Your task to perform on an android device: Is it going to rain tomorrow? Image 0: 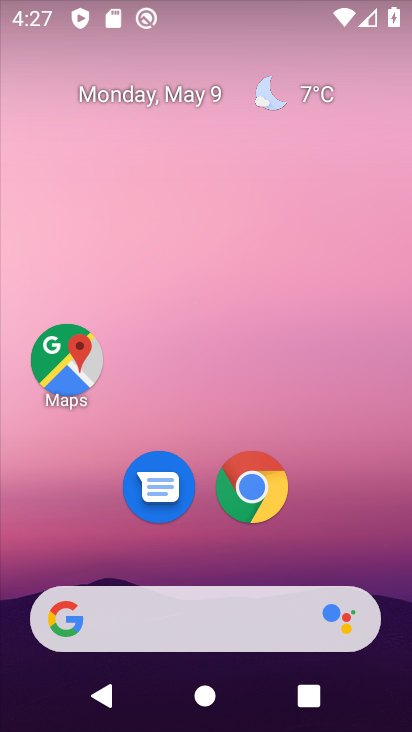
Step 0: click (186, 620)
Your task to perform on an android device: Is it going to rain tomorrow? Image 1: 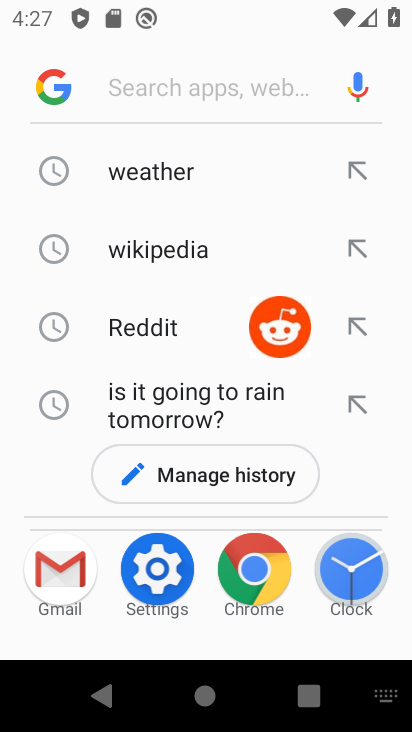
Step 1: type "Is it going to rain tomorrow?"
Your task to perform on an android device: Is it going to rain tomorrow? Image 2: 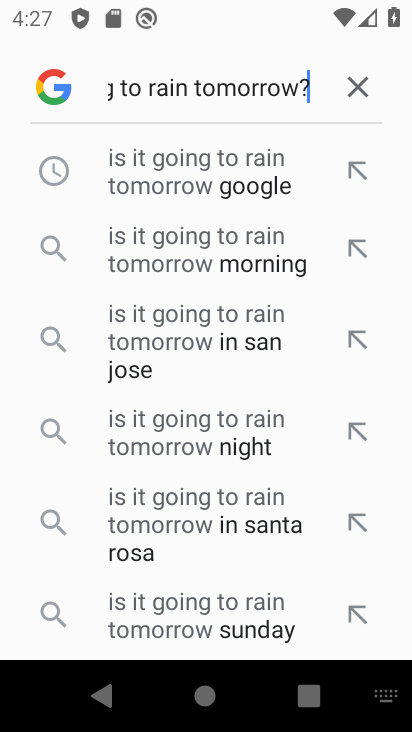
Step 2: click (210, 180)
Your task to perform on an android device: Is it going to rain tomorrow? Image 3: 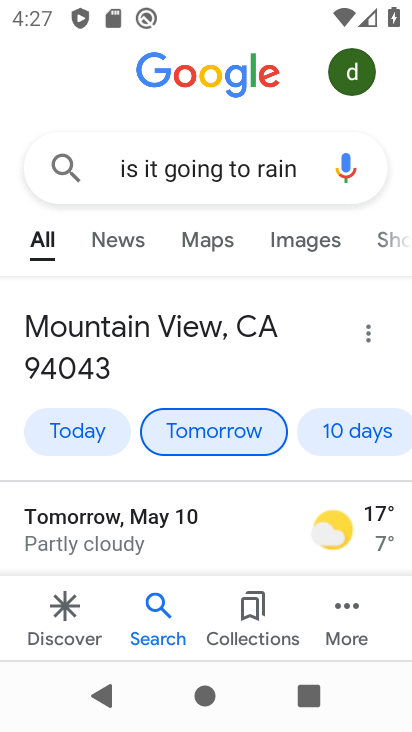
Step 3: task complete